Your task to perform on an android device: What's the weather? Image 0: 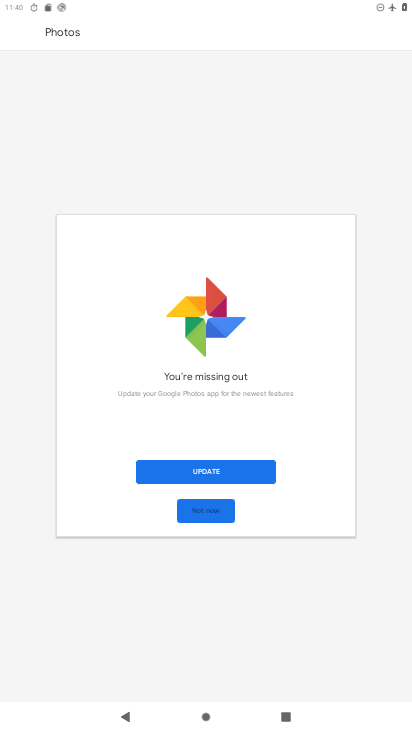
Step 0: press home button
Your task to perform on an android device: What's the weather? Image 1: 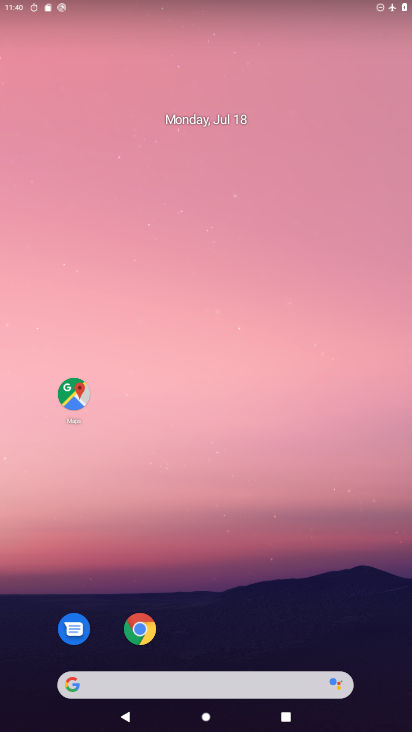
Step 1: drag from (278, 605) to (288, 2)
Your task to perform on an android device: What's the weather? Image 2: 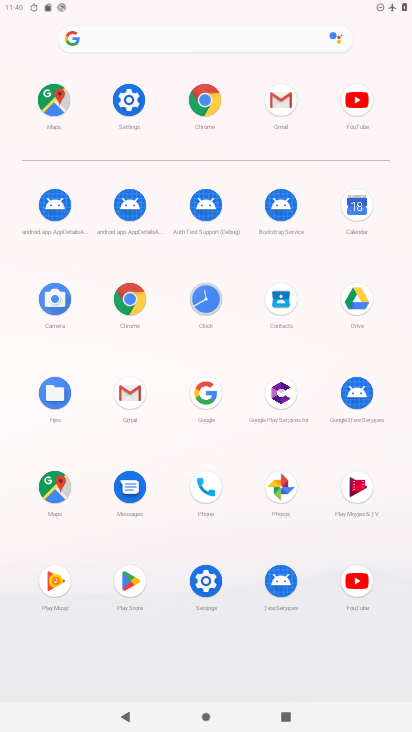
Step 2: click (204, 98)
Your task to perform on an android device: What's the weather? Image 3: 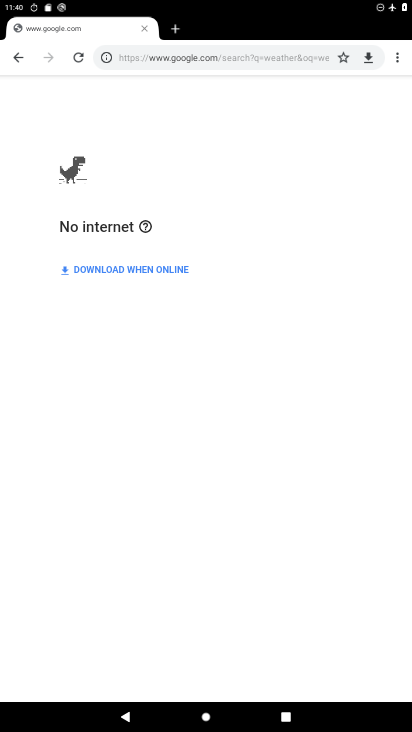
Step 3: click (232, 64)
Your task to perform on an android device: What's the weather? Image 4: 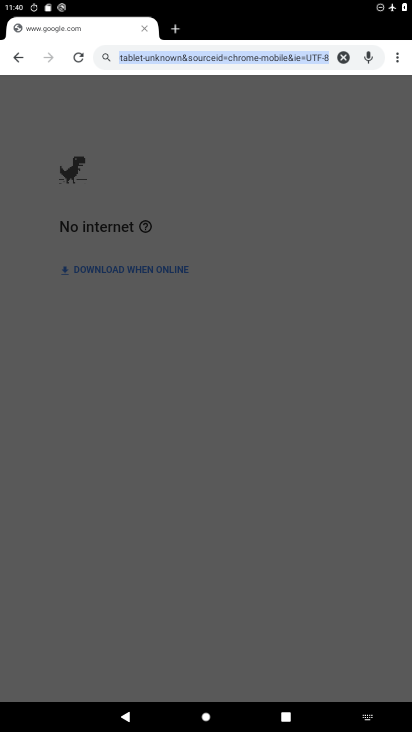
Step 4: type "weather"
Your task to perform on an android device: What's the weather? Image 5: 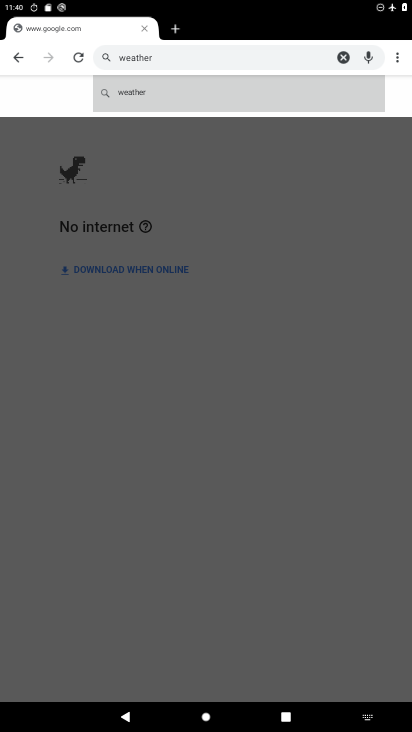
Step 5: click (150, 97)
Your task to perform on an android device: What's the weather? Image 6: 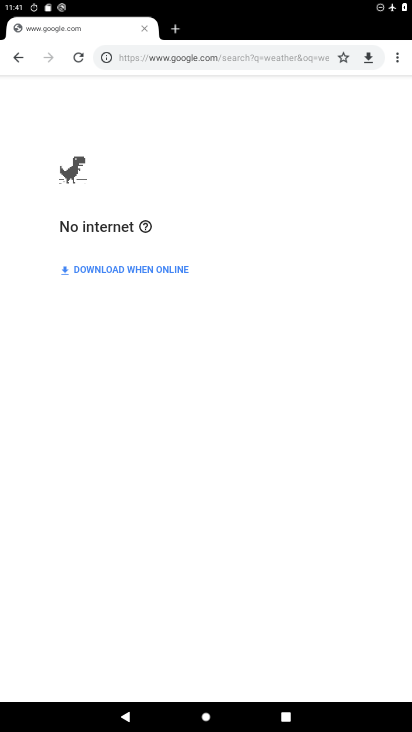
Step 6: task complete